Your task to perform on an android device: Open Google Chrome and open the bookmarks view Image 0: 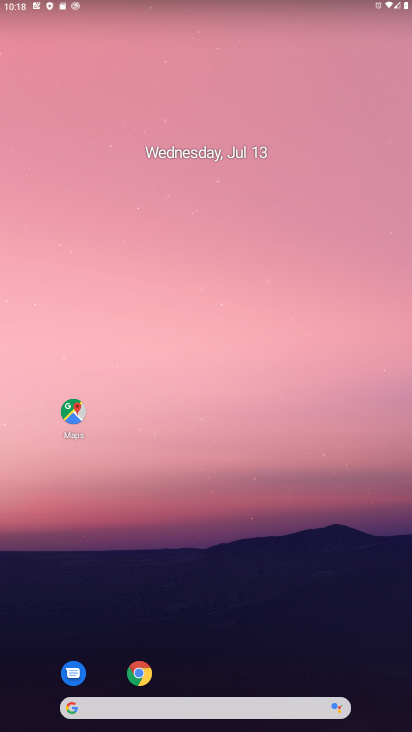
Step 0: click (147, 672)
Your task to perform on an android device: Open Google Chrome and open the bookmarks view Image 1: 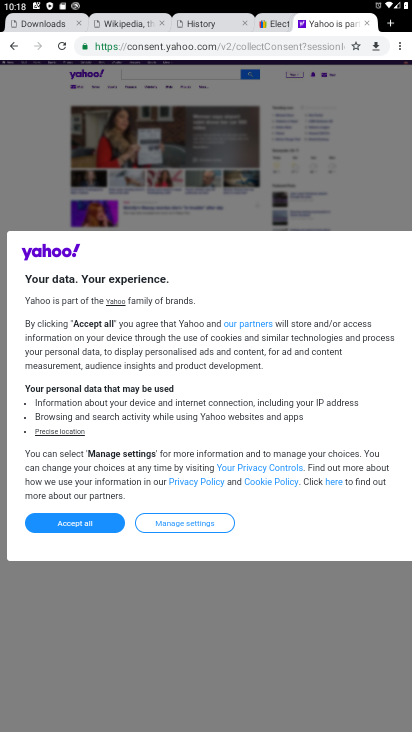
Step 1: click (402, 50)
Your task to perform on an android device: Open Google Chrome and open the bookmarks view Image 2: 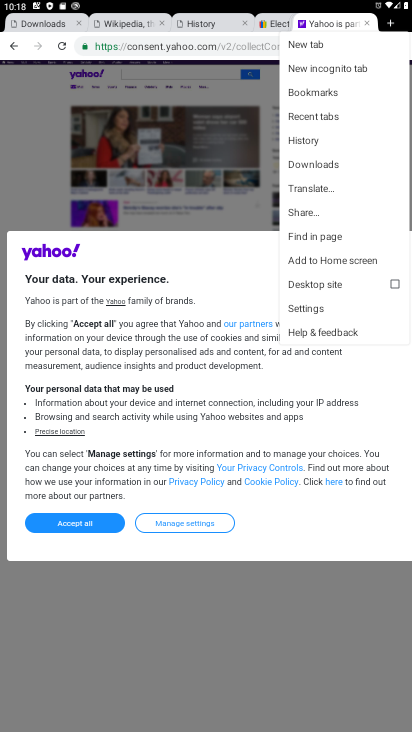
Step 2: click (336, 98)
Your task to perform on an android device: Open Google Chrome and open the bookmarks view Image 3: 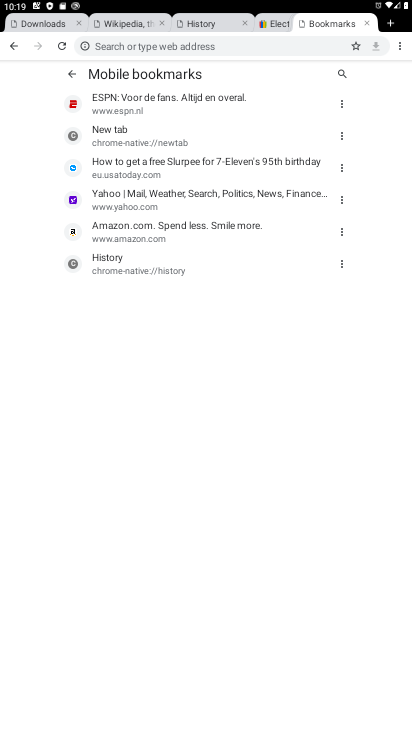
Step 3: task complete